Your task to perform on an android device: What's the weather? Image 0: 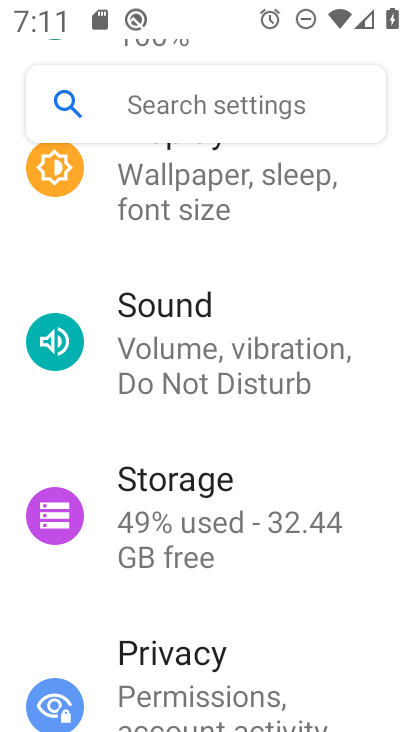
Step 0: press home button
Your task to perform on an android device: What's the weather? Image 1: 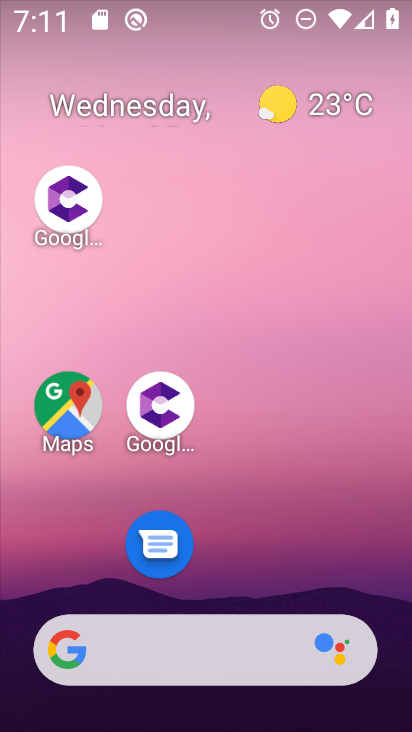
Step 1: click (217, 640)
Your task to perform on an android device: What's the weather? Image 2: 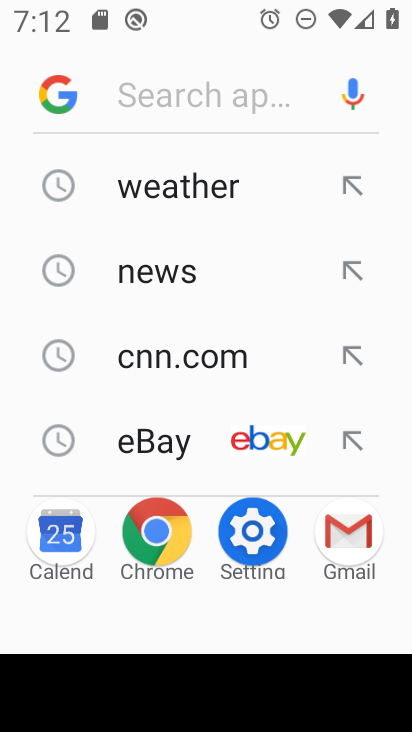
Step 2: click (152, 175)
Your task to perform on an android device: What's the weather? Image 3: 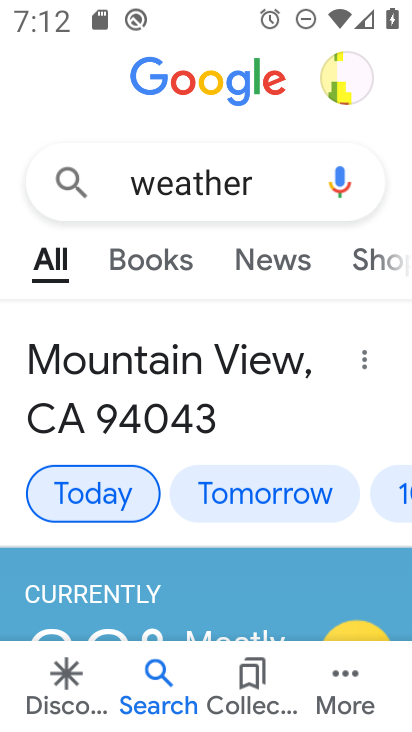
Step 3: task complete